Your task to perform on an android device: When is my next meeting? Image 0: 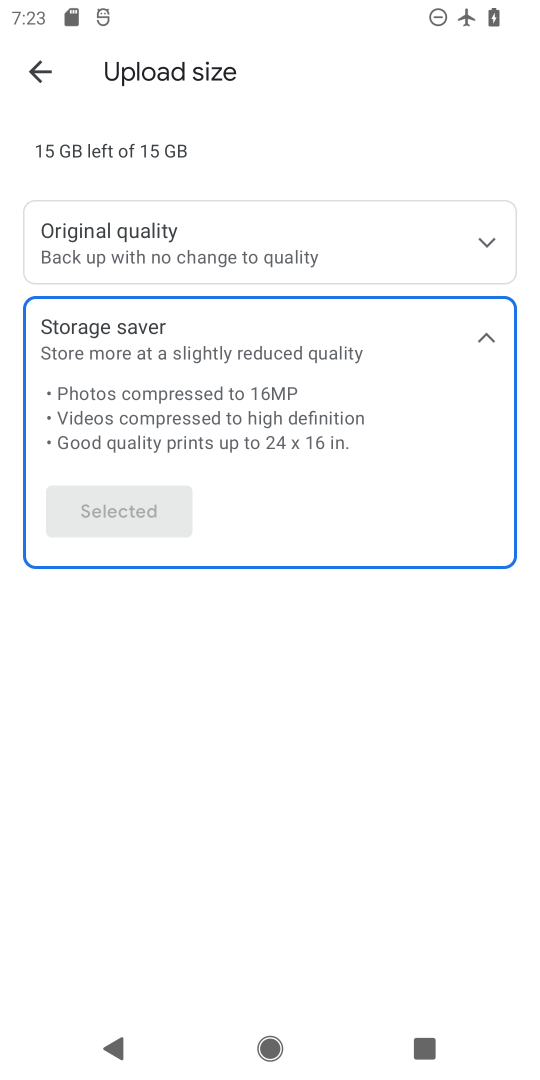
Step 0: press back button
Your task to perform on an android device: When is my next meeting? Image 1: 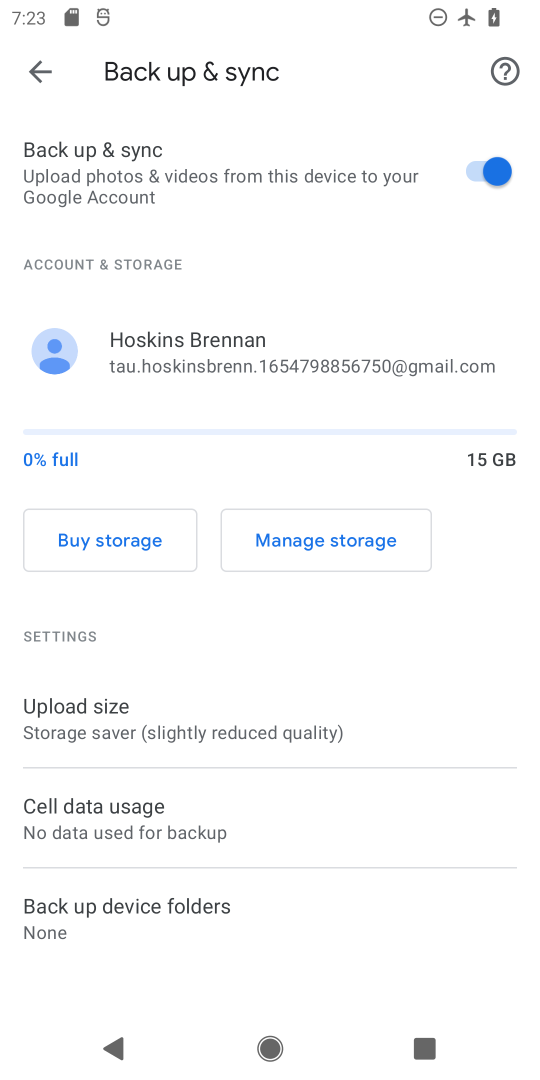
Step 1: press back button
Your task to perform on an android device: When is my next meeting? Image 2: 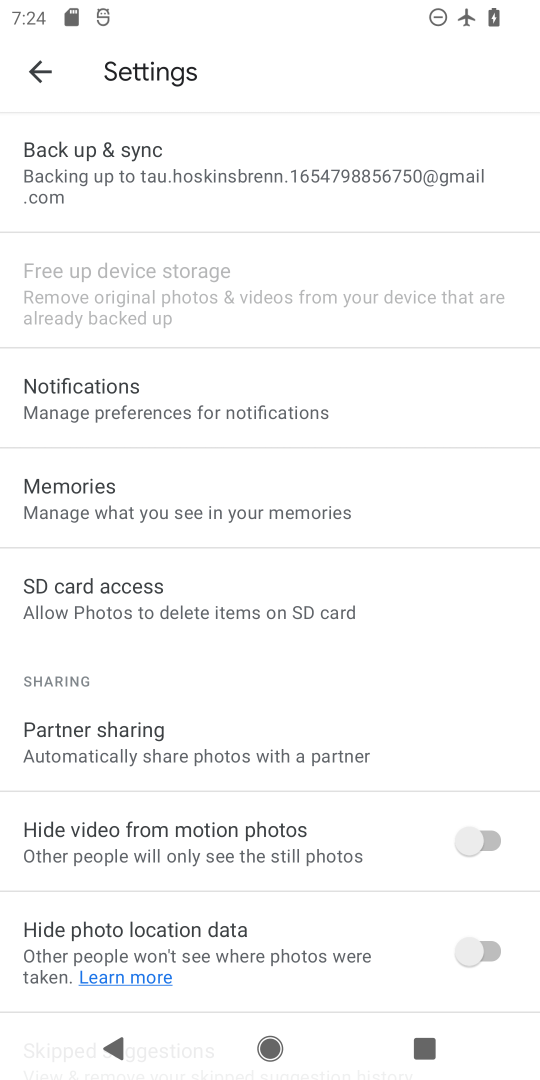
Step 2: press home button
Your task to perform on an android device: When is my next meeting? Image 3: 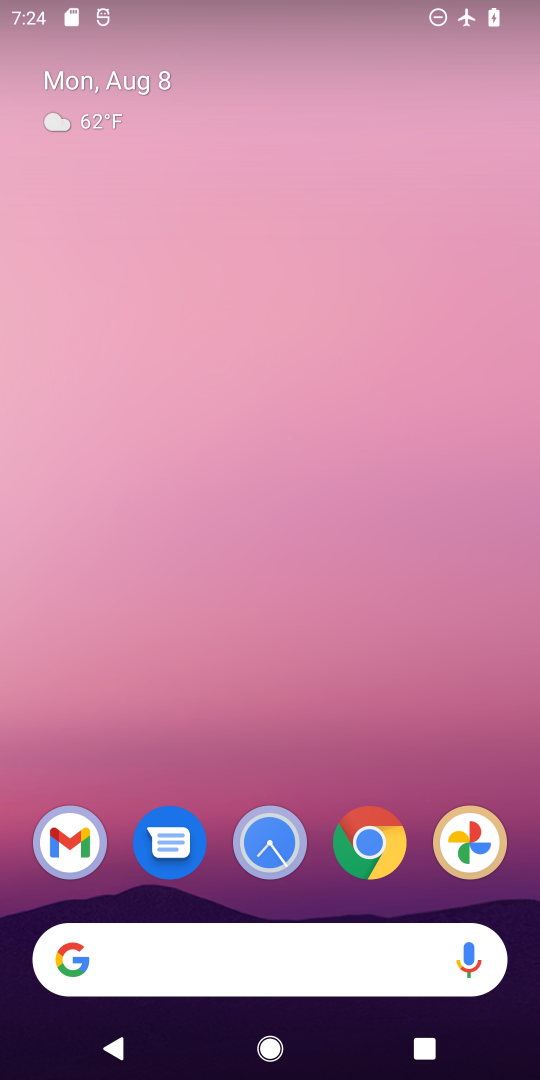
Step 3: drag from (221, 900) to (125, 499)
Your task to perform on an android device: When is my next meeting? Image 4: 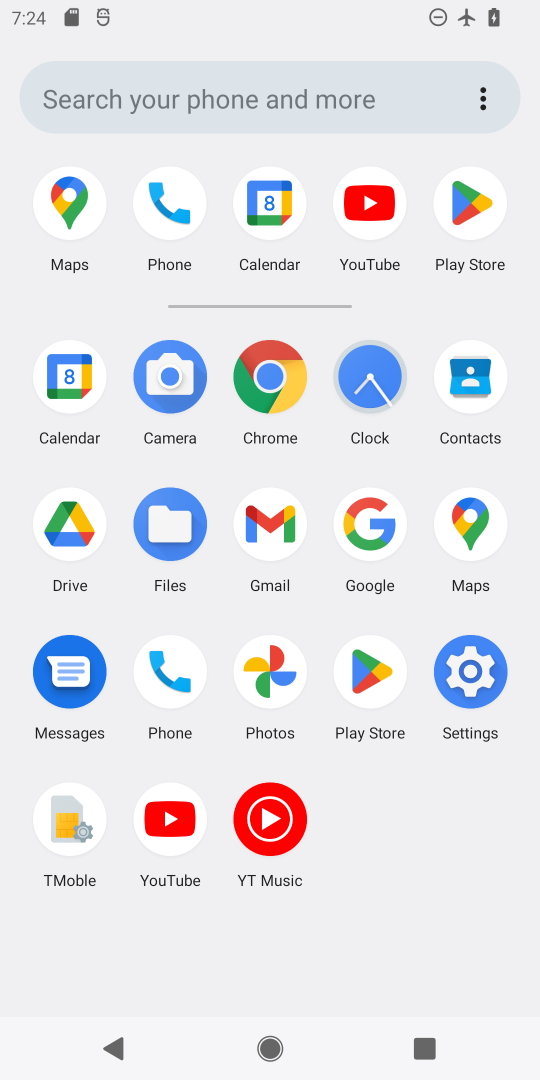
Step 4: click (65, 373)
Your task to perform on an android device: When is my next meeting? Image 5: 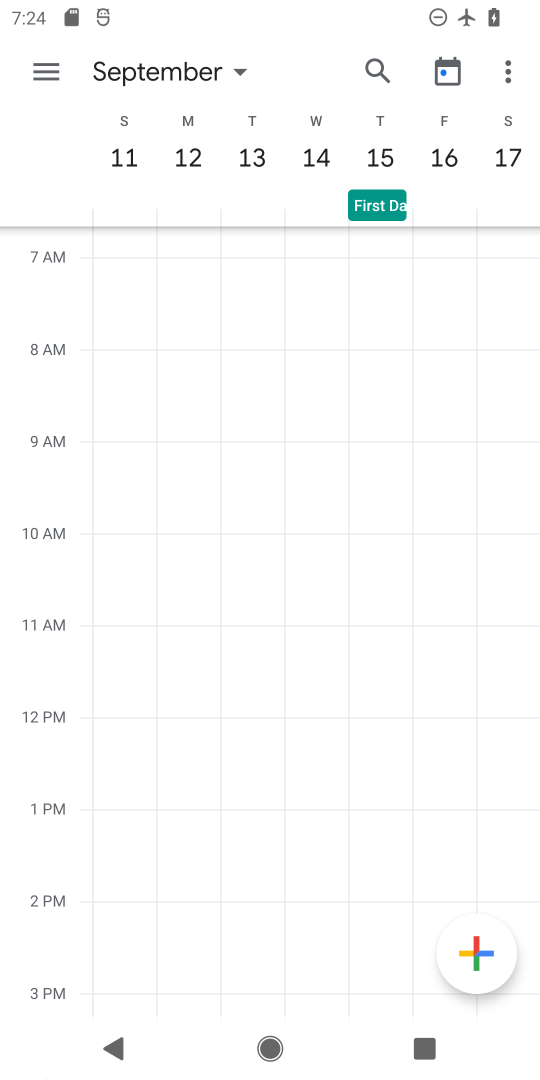
Step 5: drag from (481, 182) to (284, 152)
Your task to perform on an android device: When is my next meeting? Image 6: 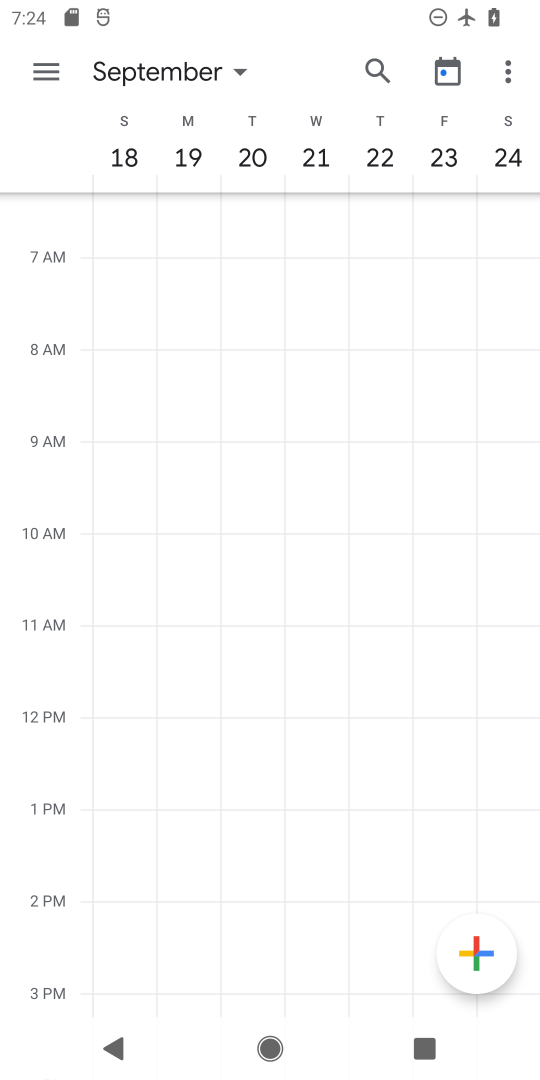
Step 6: click (448, 71)
Your task to perform on an android device: When is my next meeting? Image 7: 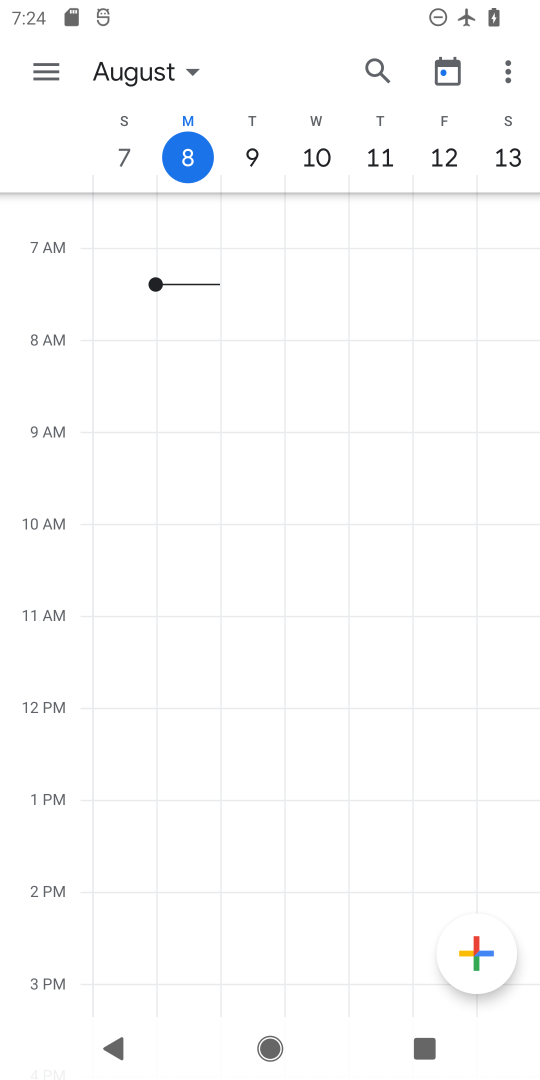
Step 7: drag from (472, 169) to (35, 146)
Your task to perform on an android device: When is my next meeting? Image 8: 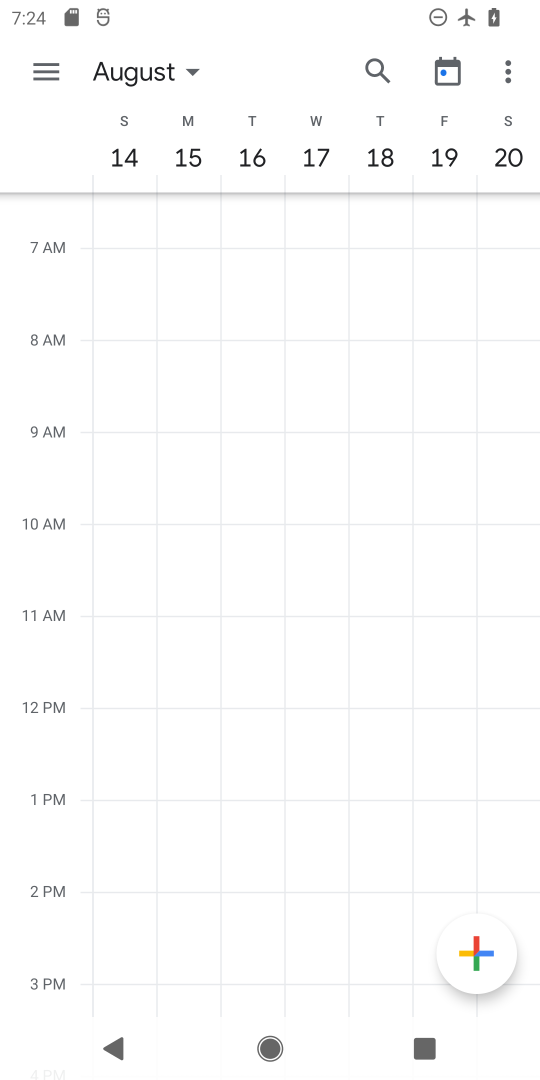
Step 8: drag from (417, 178) to (48, 140)
Your task to perform on an android device: When is my next meeting? Image 9: 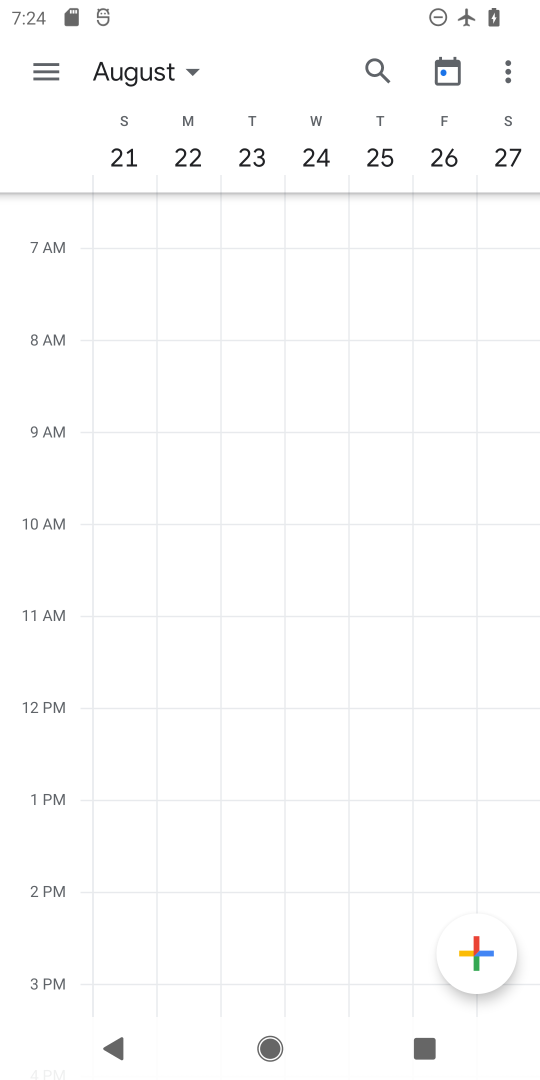
Step 9: drag from (421, 169) to (4, 115)
Your task to perform on an android device: When is my next meeting? Image 10: 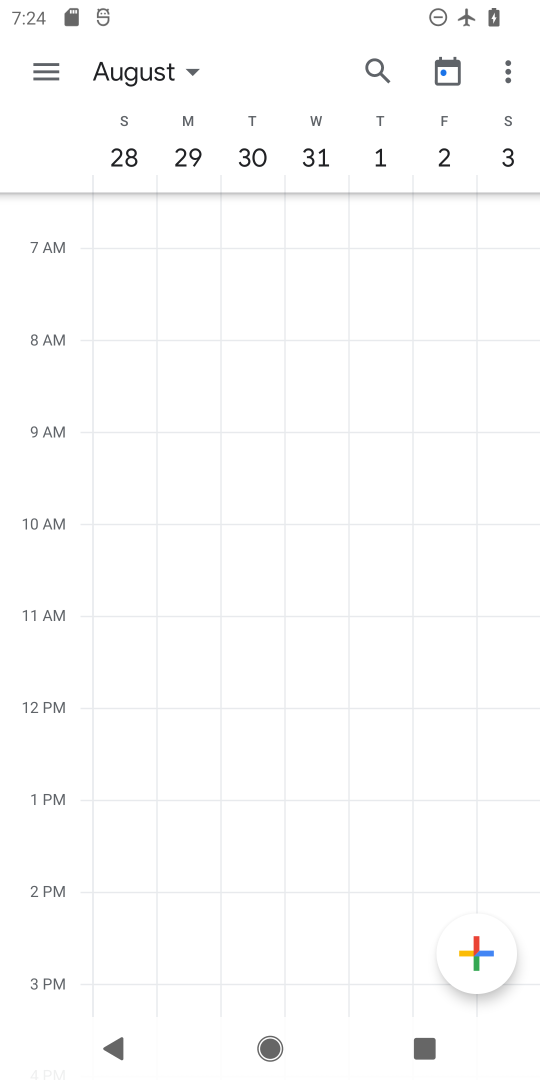
Step 10: click (4, 115)
Your task to perform on an android device: When is my next meeting? Image 11: 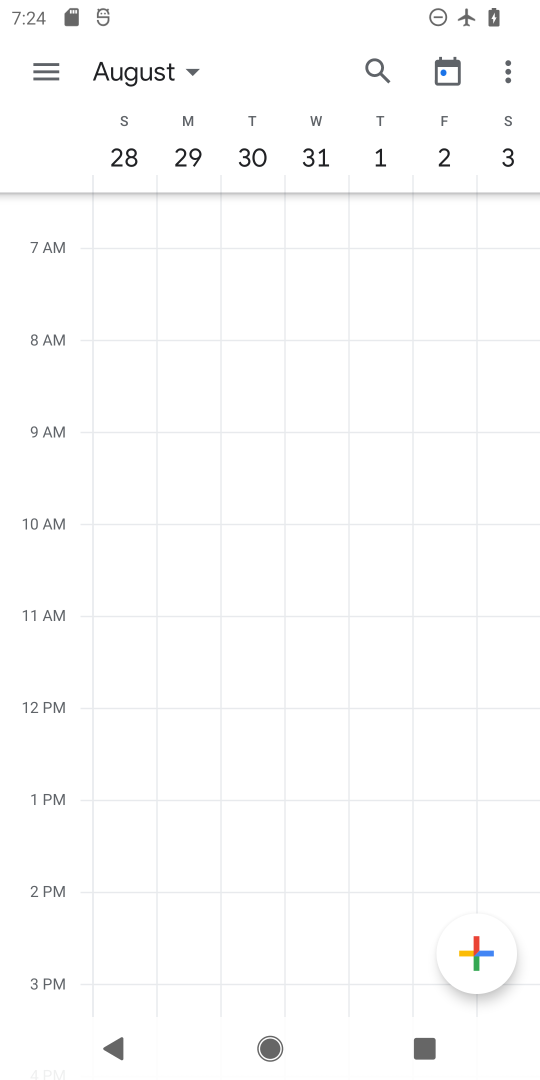
Step 11: task complete